Your task to perform on an android device: Search for sushi restaurants on Maps Image 0: 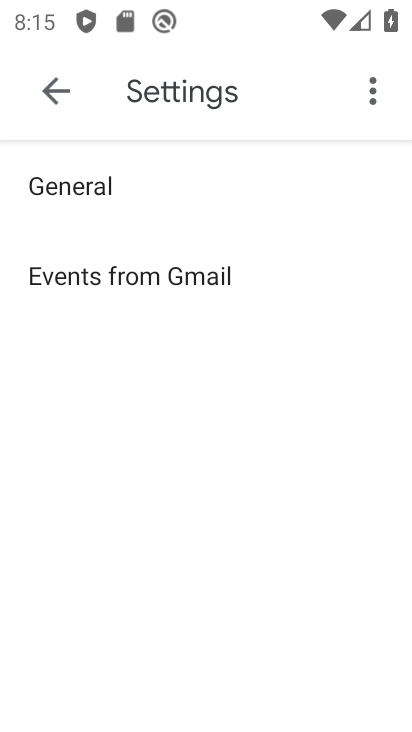
Step 0: press home button
Your task to perform on an android device: Search for sushi restaurants on Maps Image 1: 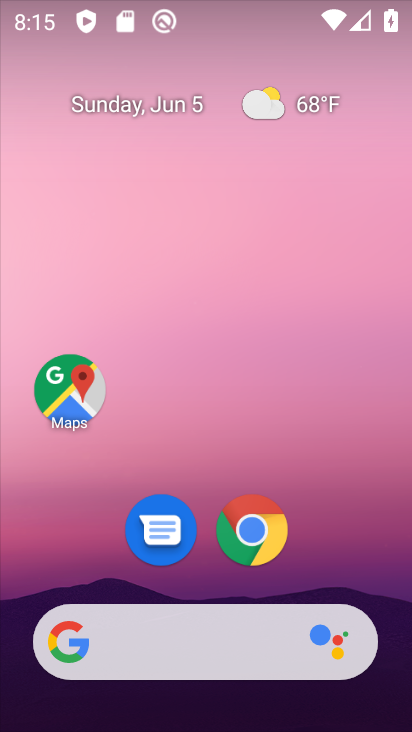
Step 1: click (68, 392)
Your task to perform on an android device: Search for sushi restaurants on Maps Image 2: 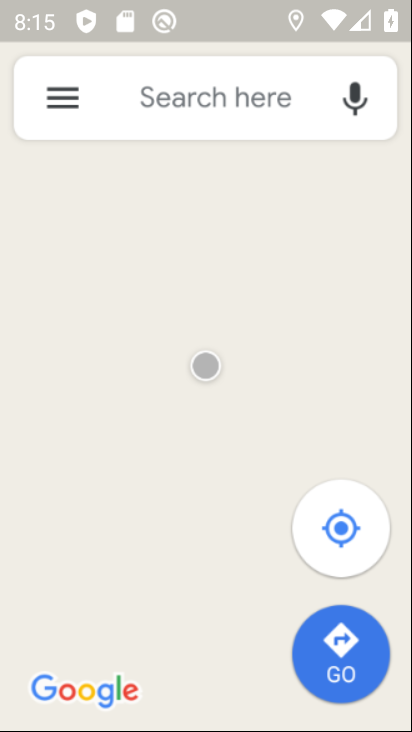
Step 2: click (225, 99)
Your task to perform on an android device: Search for sushi restaurants on Maps Image 3: 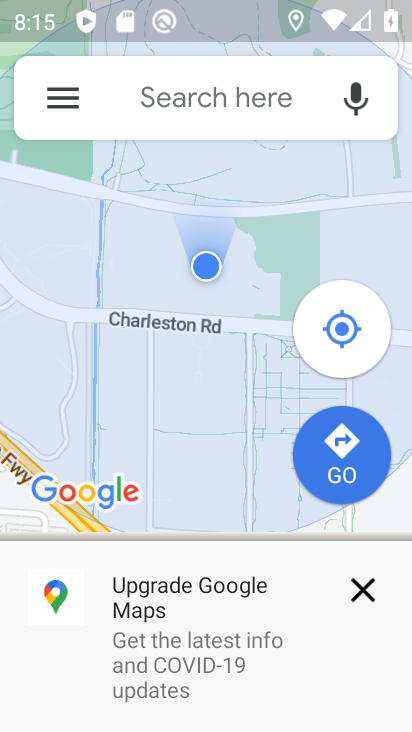
Step 3: click (154, 94)
Your task to perform on an android device: Search for sushi restaurants on Maps Image 4: 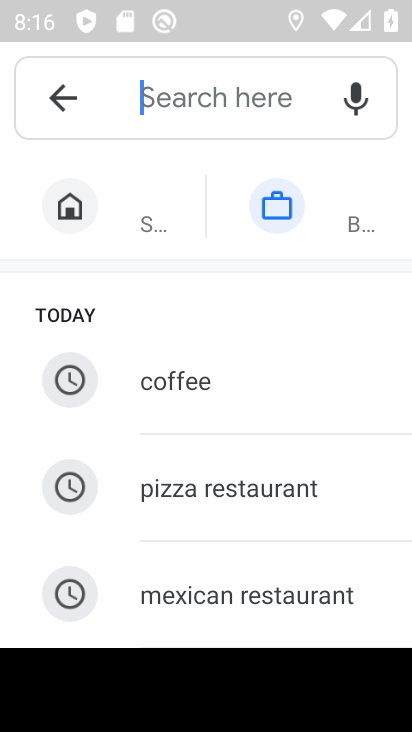
Step 4: type "sushi restaurants"
Your task to perform on an android device: Search for sushi restaurants on Maps Image 5: 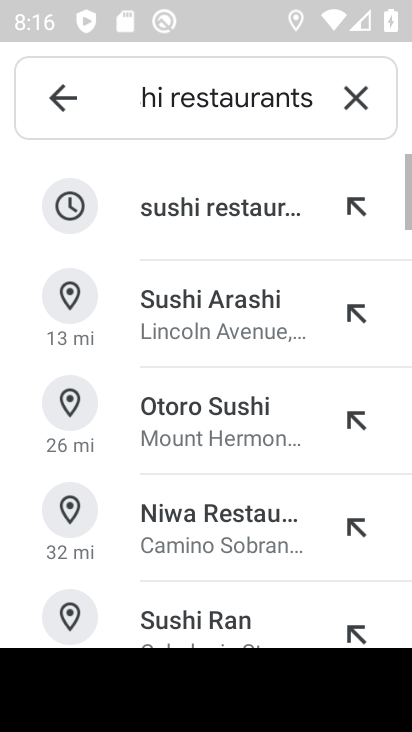
Step 5: click (198, 225)
Your task to perform on an android device: Search for sushi restaurants on Maps Image 6: 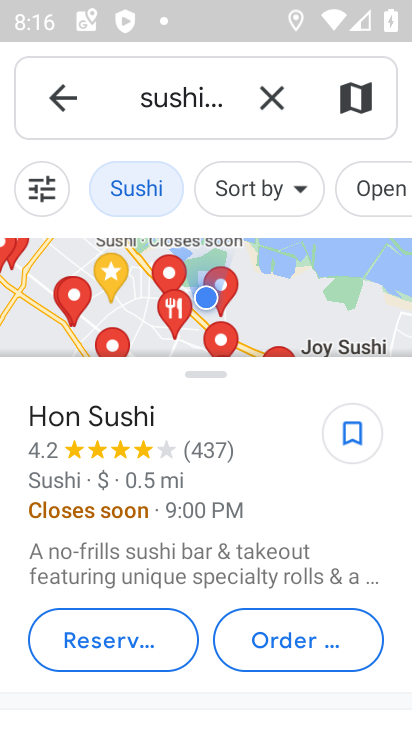
Step 6: task complete